Your task to perform on an android device: open app "The Home Depot" (install if not already installed) Image 0: 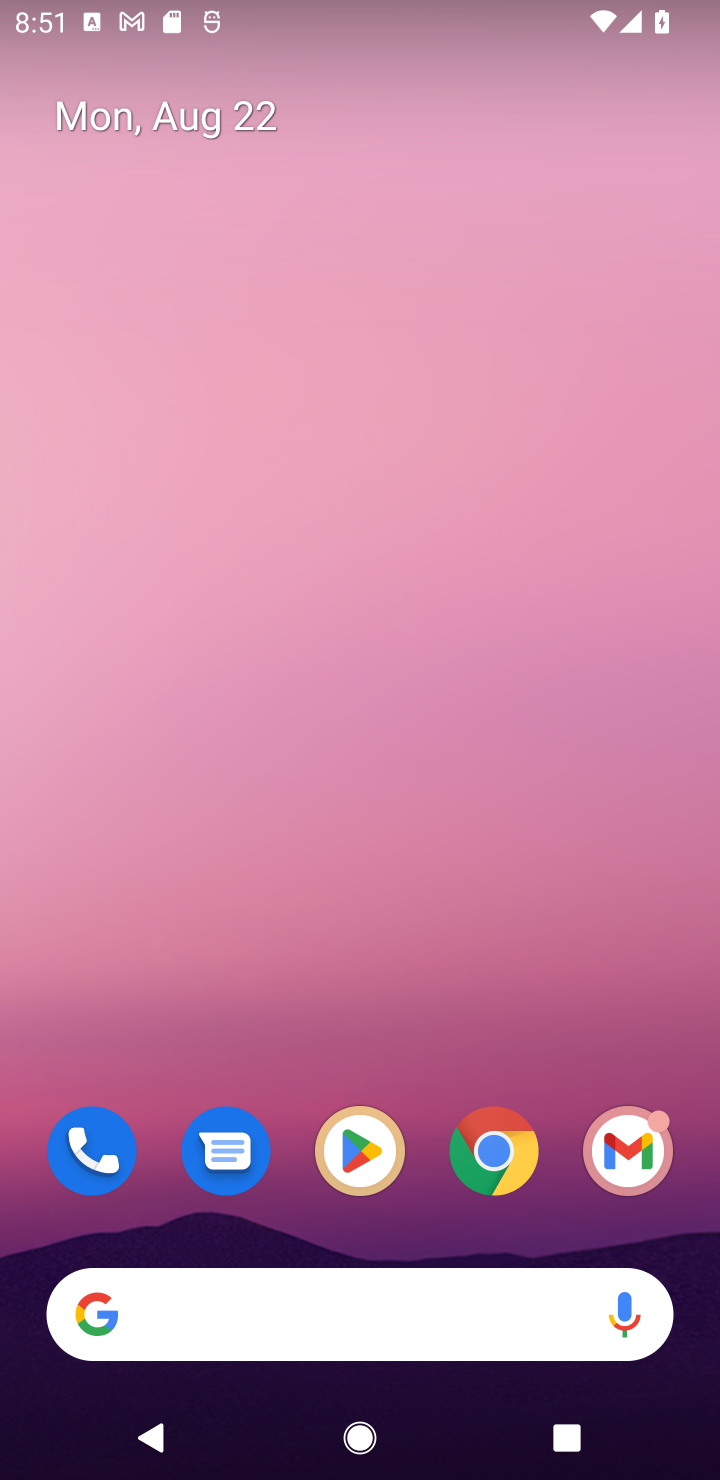
Step 0: click (362, 1164)
Your task to perform on an android device: open app "The Home Depot" (install if not already installed) Image 1: 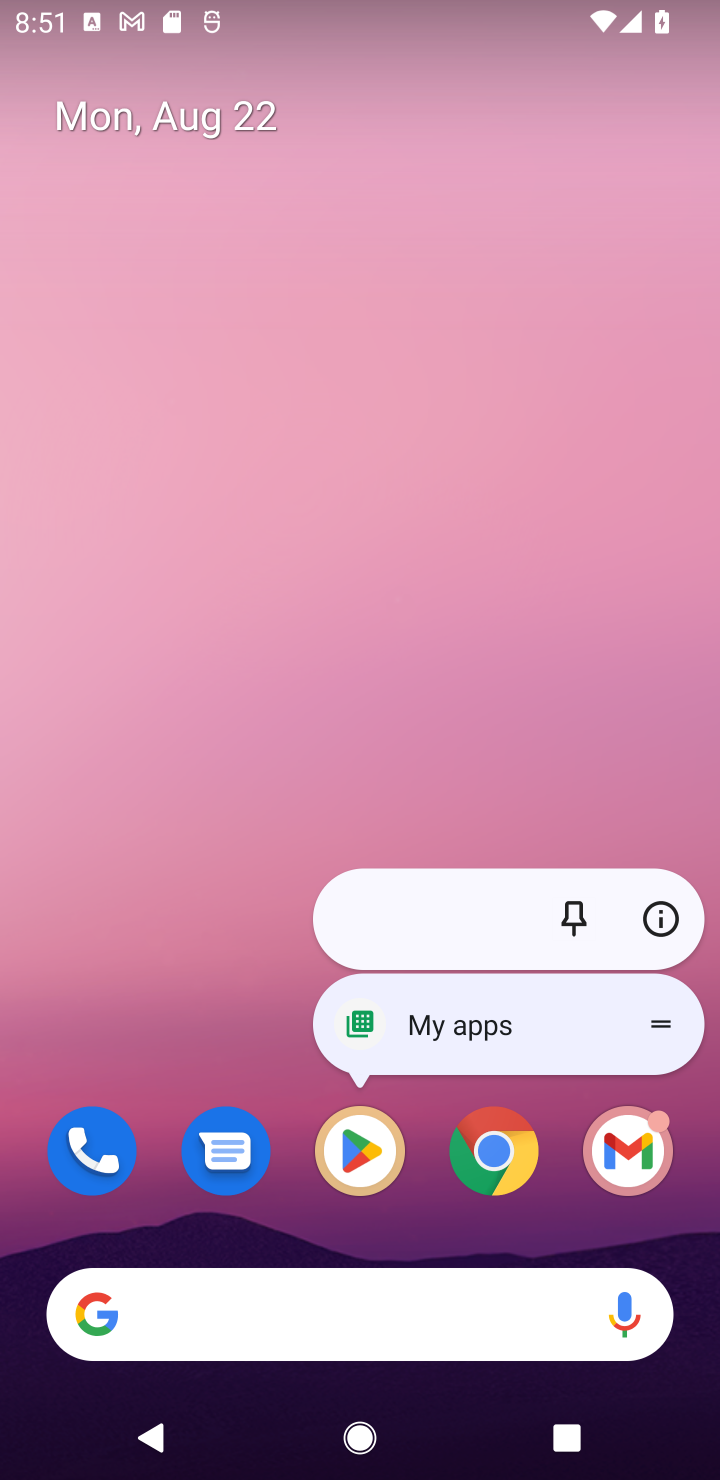
Step 1: click (353, 1142)
Your task to perform on an android device: open app "The Home Depot" (install if not already installed) Image 2: 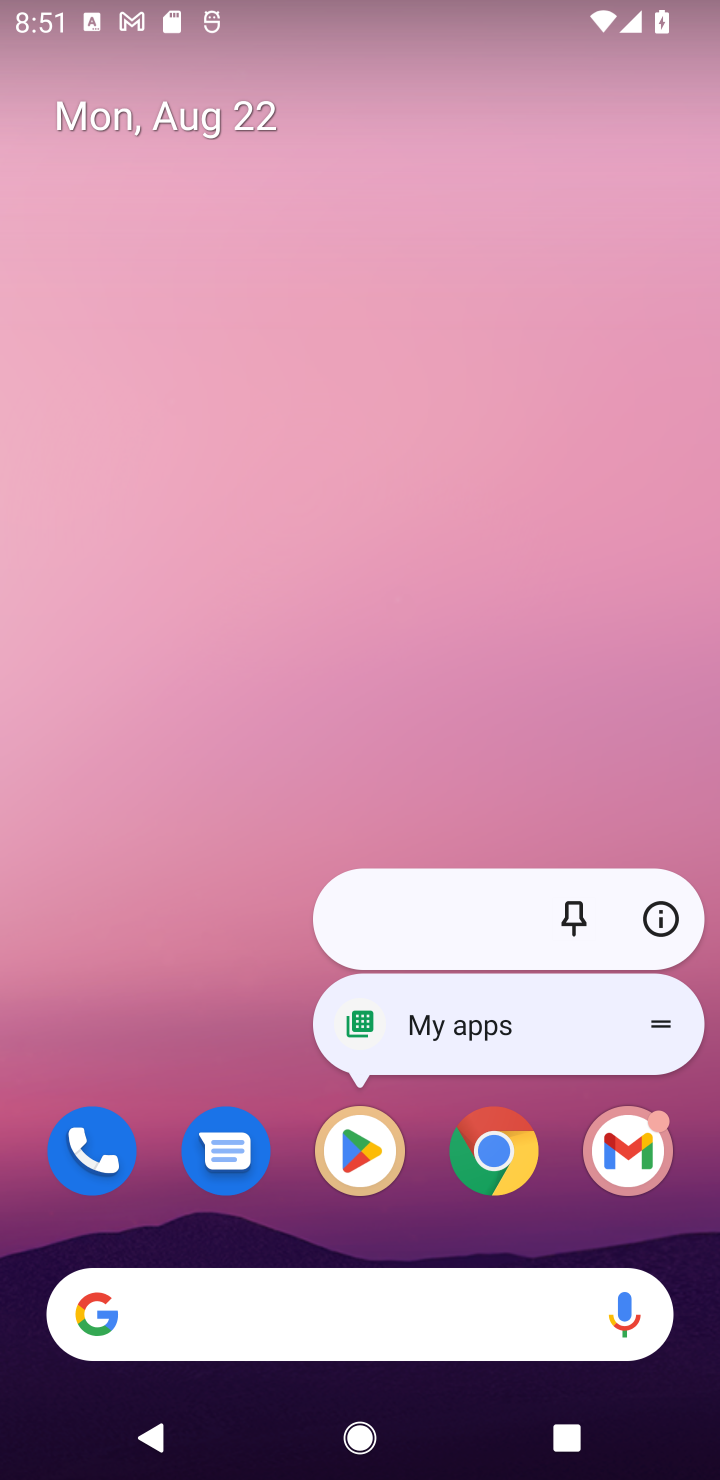
Step 2: click (353, 1142)
Your task to perform on an android device: open app "The Home Depot" (install if not already installed) Image 3: 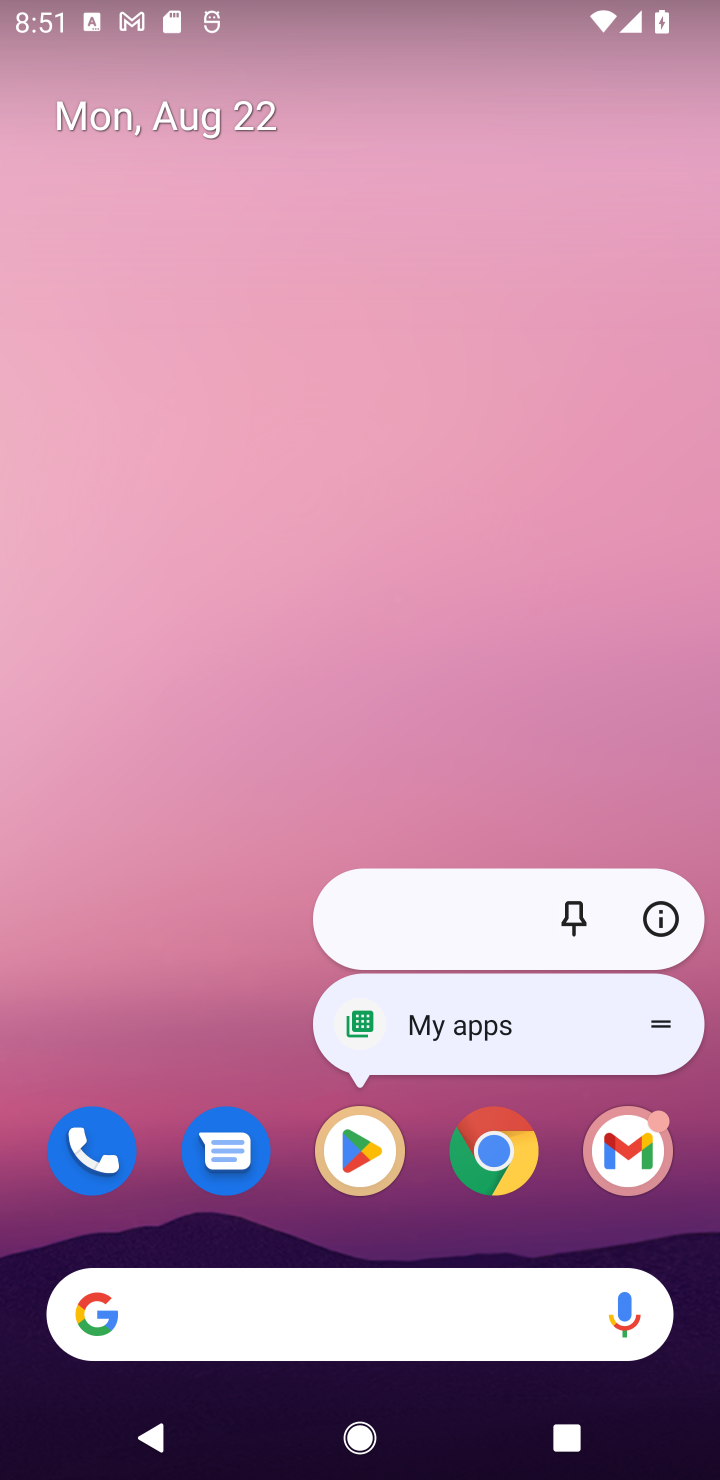
Step 3: click (353, 1151)
Your task to perform on an android device: open app "The Home Depot" (install if not already installed) Image 4: 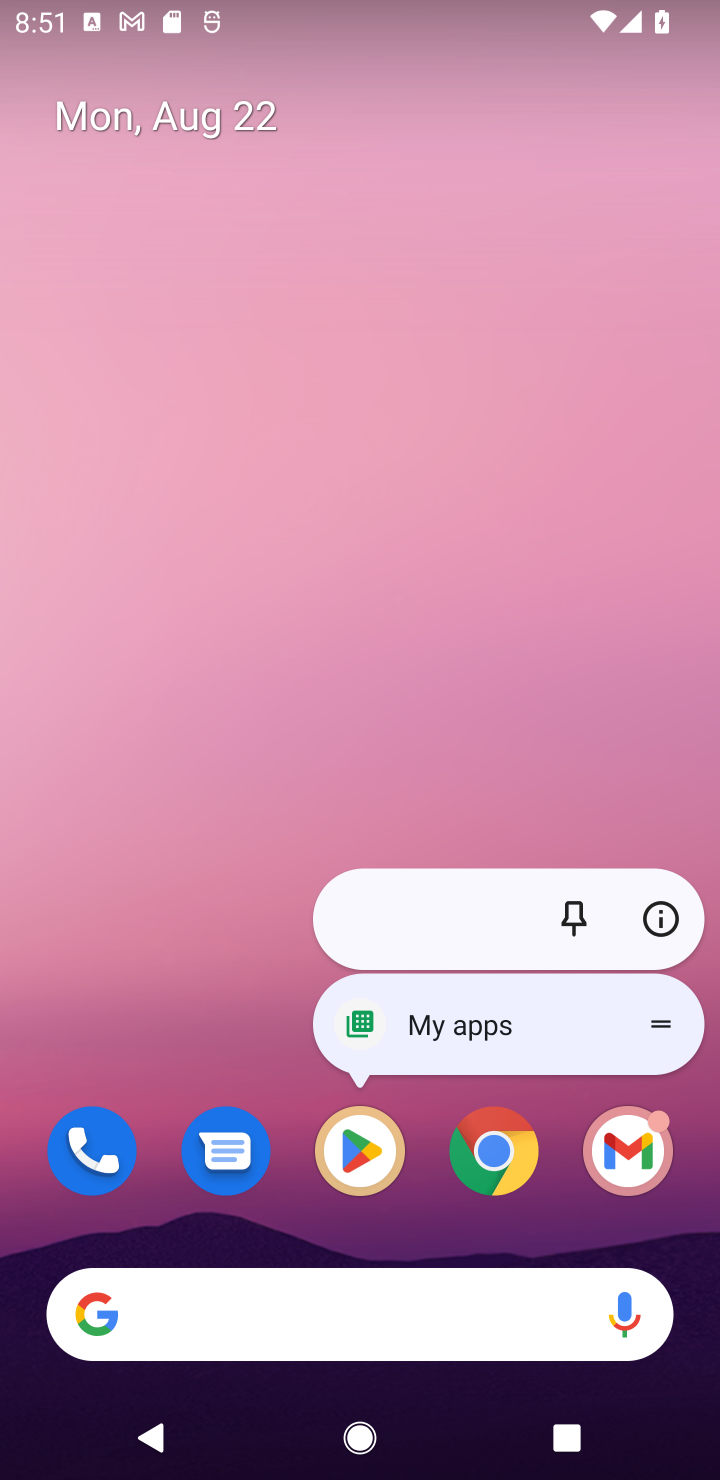
Step 4: click (353, 1150)
Your task to perform on an android device: open app "The Home Depot" (install if not already installed) Image 5: 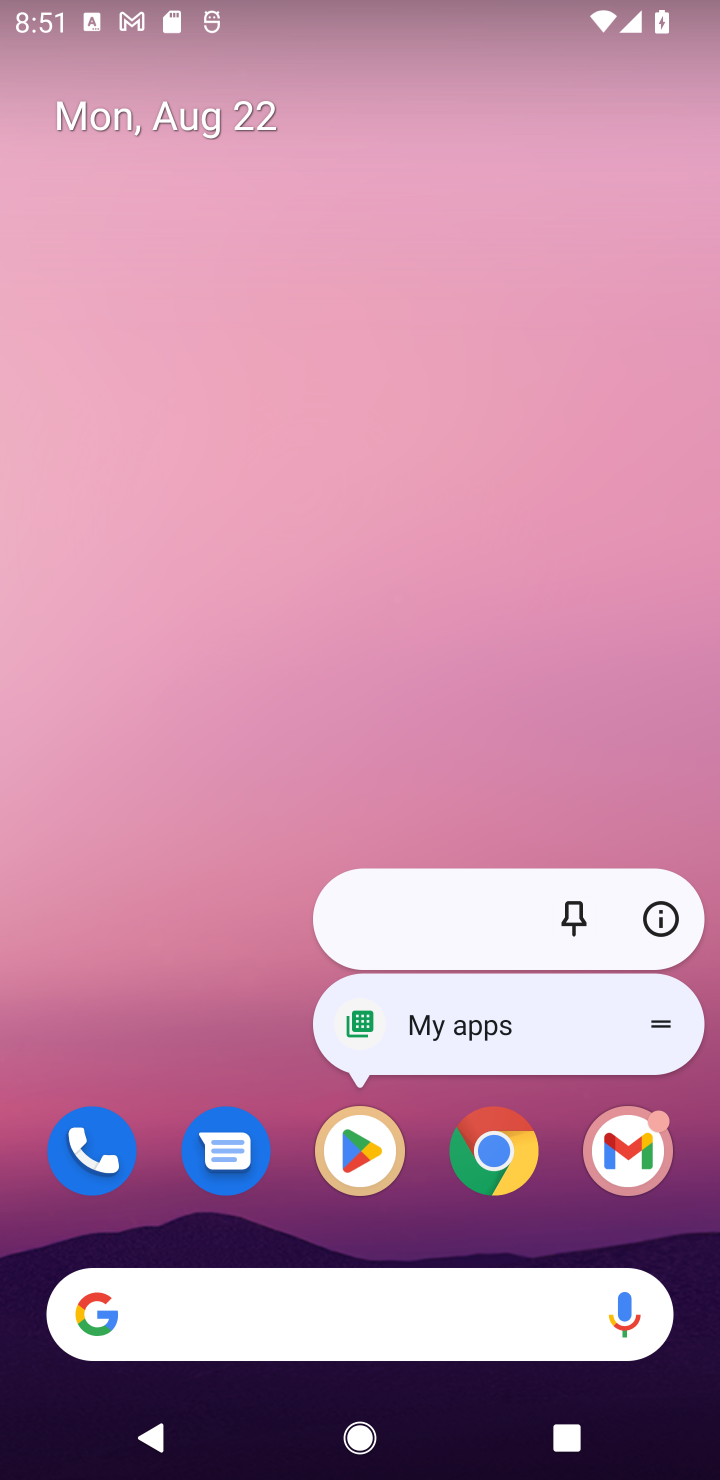
Step 5: click (353, 1153)
Your task to perform on an android device: open app "The Home Depot" (install if not already installed) Image 6: 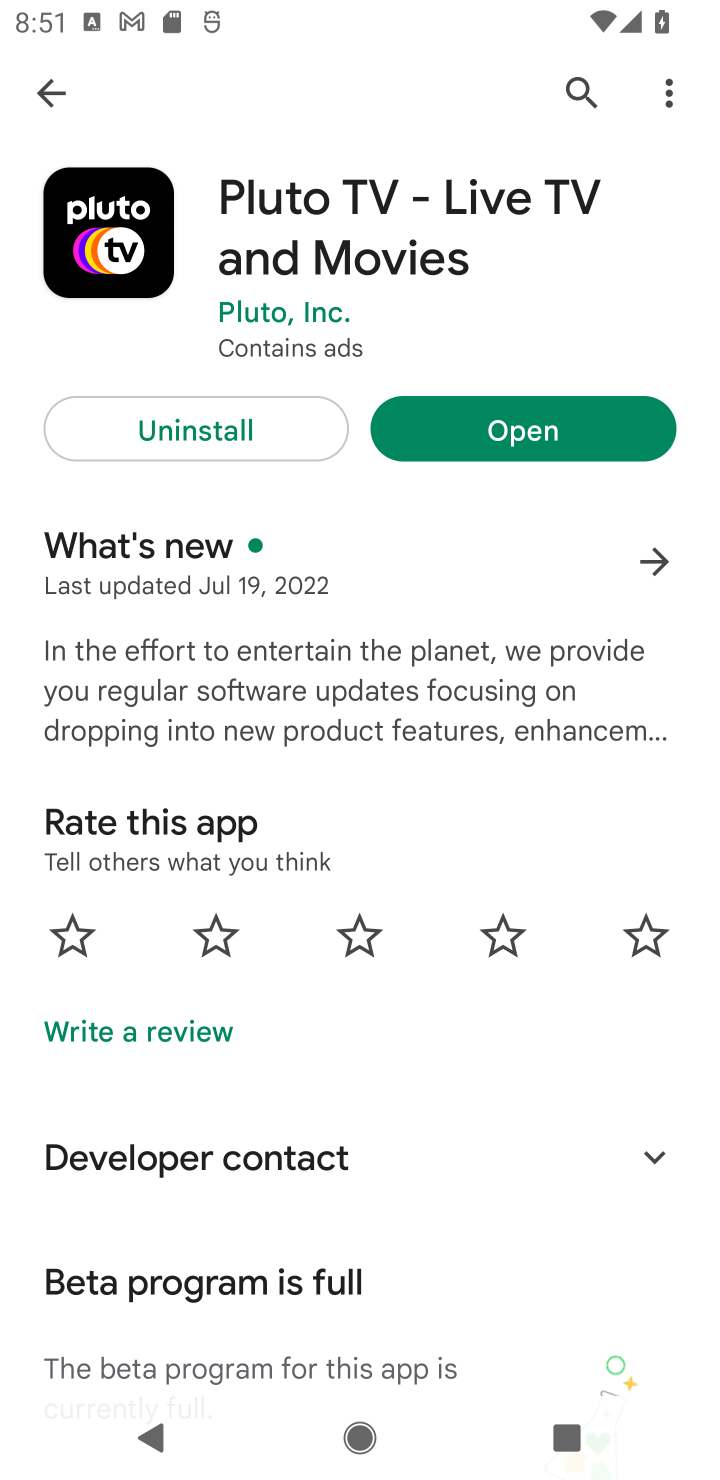
Step 6: click (574, 82)
Your task to perform on an android device: open app "The Home Depot" (install if not already installed) Image 7: 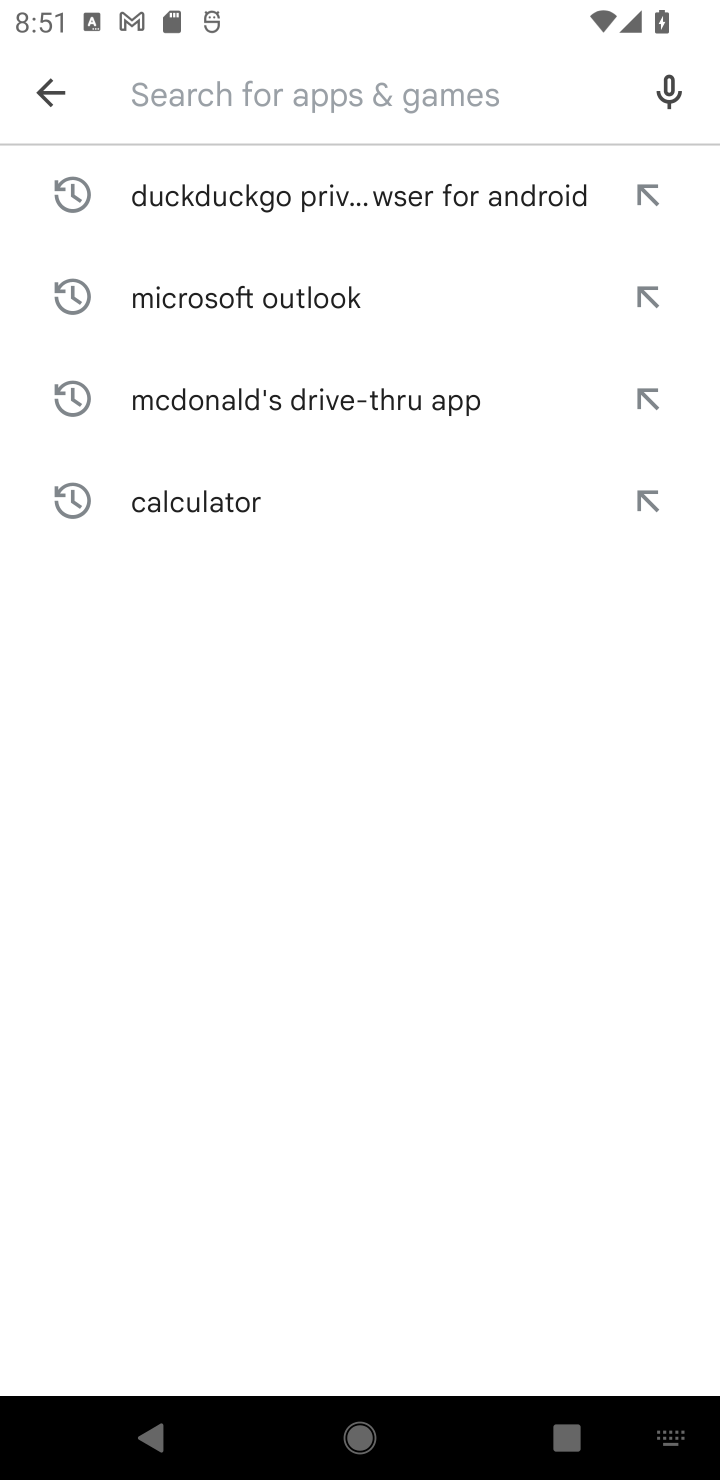
Step 7: type "The Home Depot"
Your task to perform on an android device: open app "The Home Depot" (install if not already installed) Image 8: 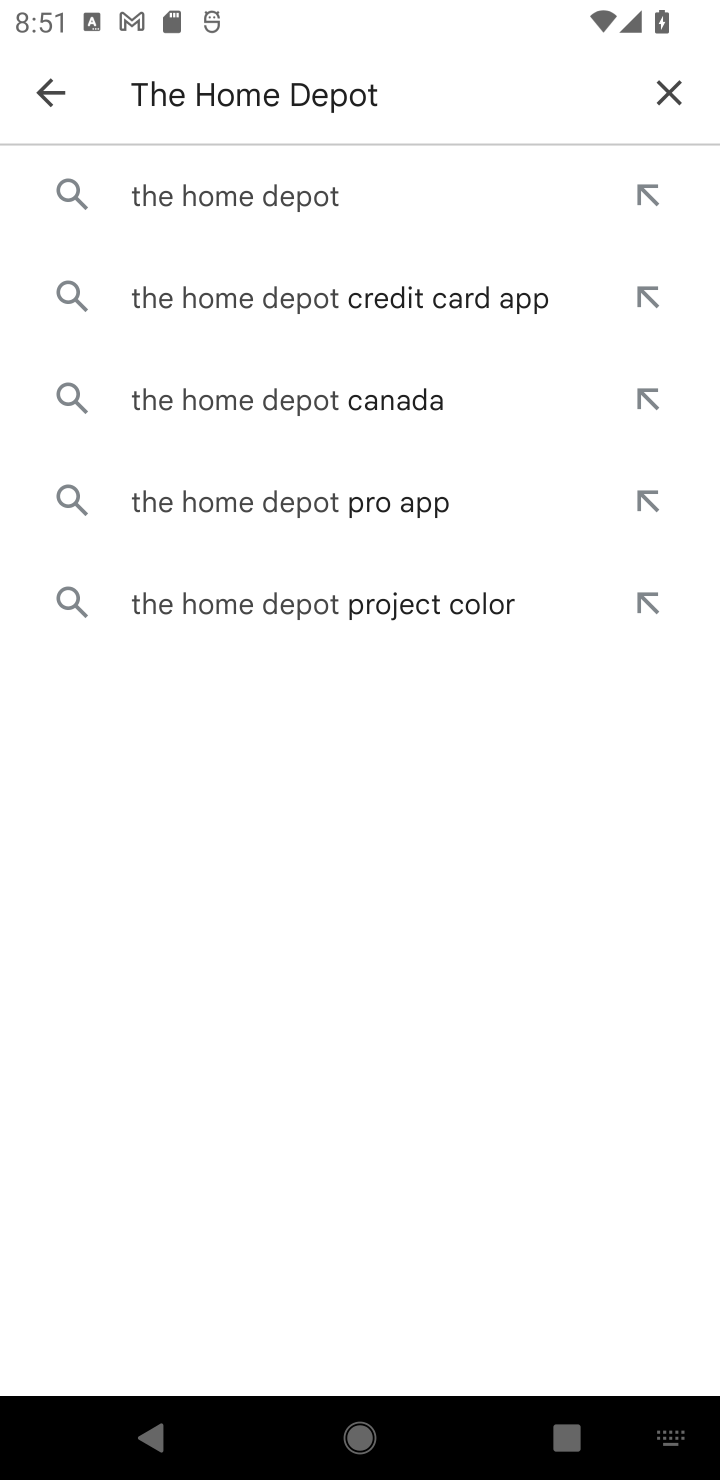
Step 8: click (275, 203)
Your task to perform on an android device: open app "The Home Depot" (install if not already installed) Image 9: 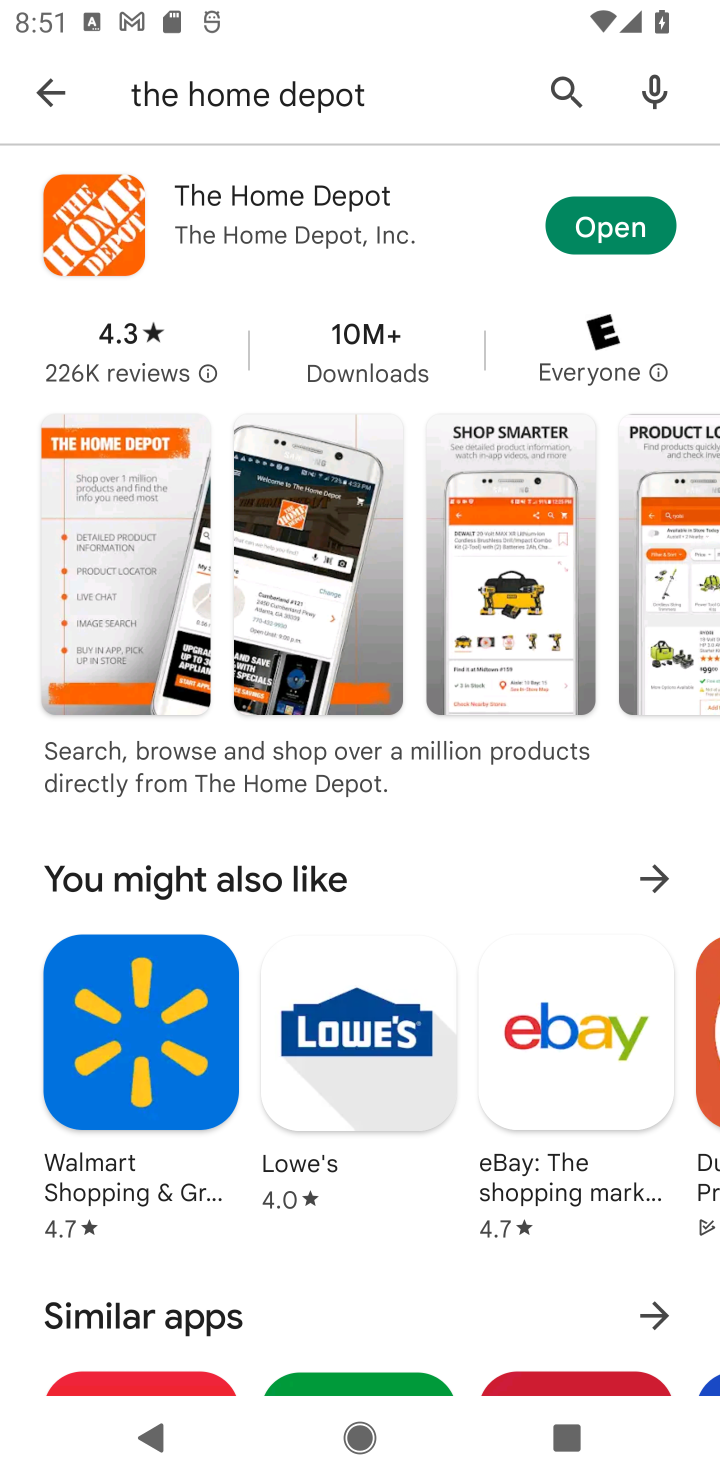
Step 9: click (627, 248)
Your task to perform on an android device: open app "The Home Depot" (install if not already installed) Image 10: 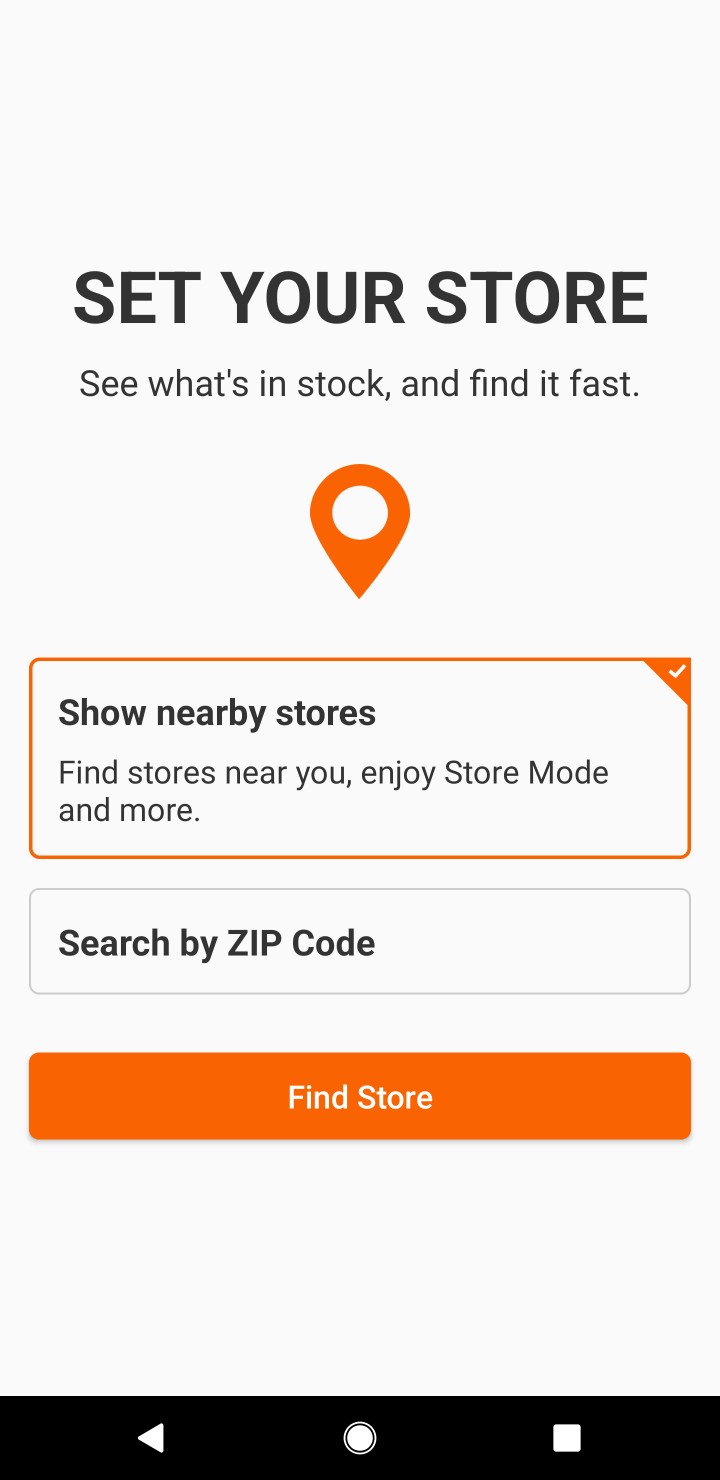
Step 10: task complete